Your task to perform on an android device: See recent photos Image 0: 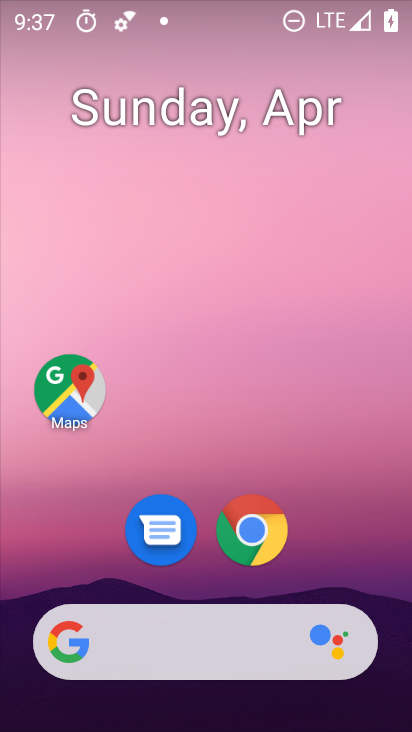
Step 0: drag from (395, 604) to (360, 0)
Your task to perform on an android device: See recent photos Image 1: 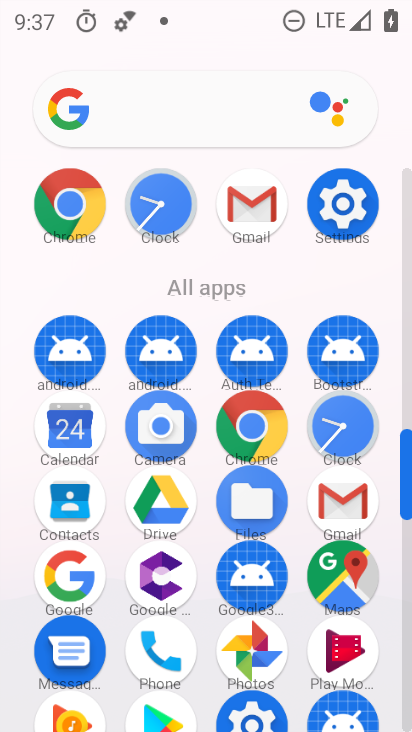
Step 1: click (250, 657)
Your task to perform on an android device: See recent photos Image 2: 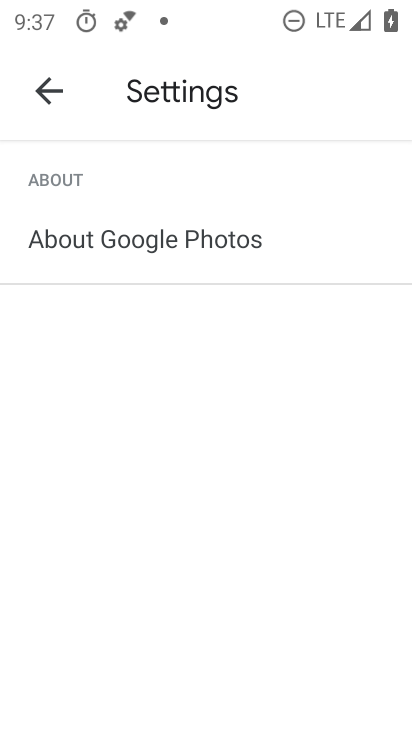
Step 2: click (43, 91)
Your task to perform on an android device: See recent photos Image 3: 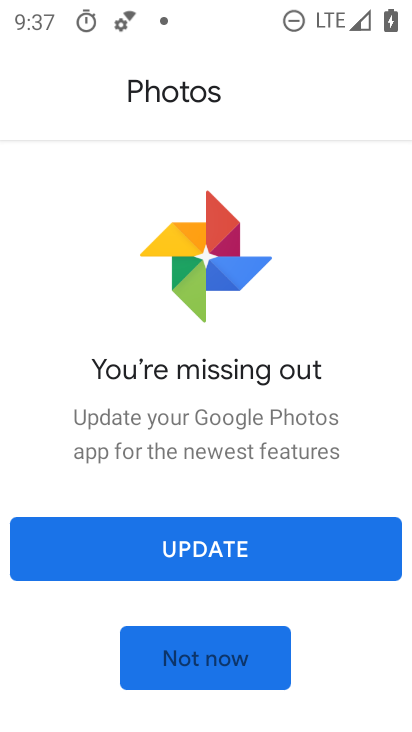
Step 3: click (214, 559)
Your task to perform on an android device: See recent photos Image 4: 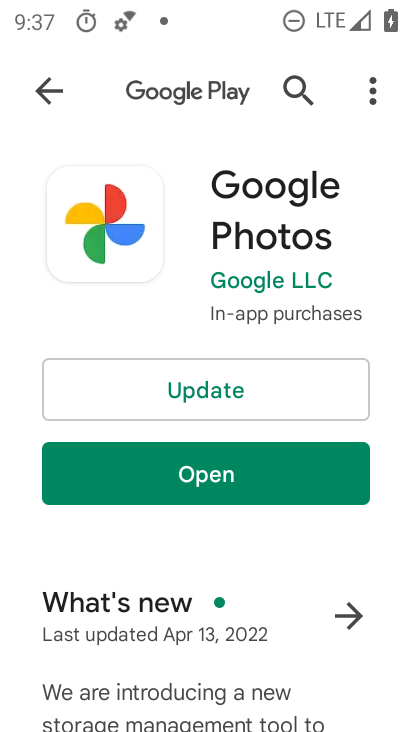
Step 4: click (195, 386)
Your task to perform on an android device: See recent photos Image 5: 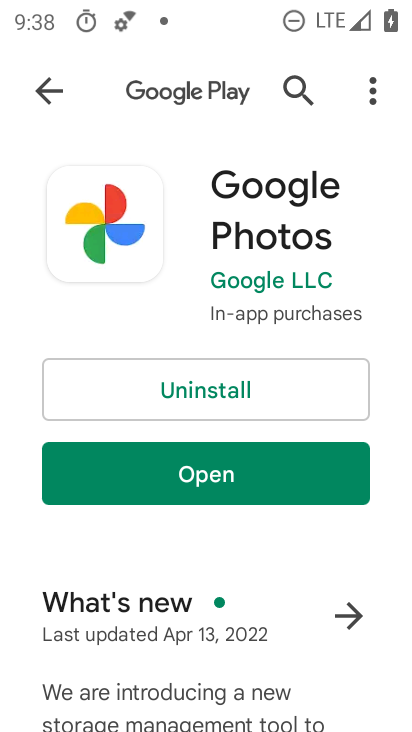
Step 5: click (197, 491)
Your task to perform on an android device: See recent photos Image 6: 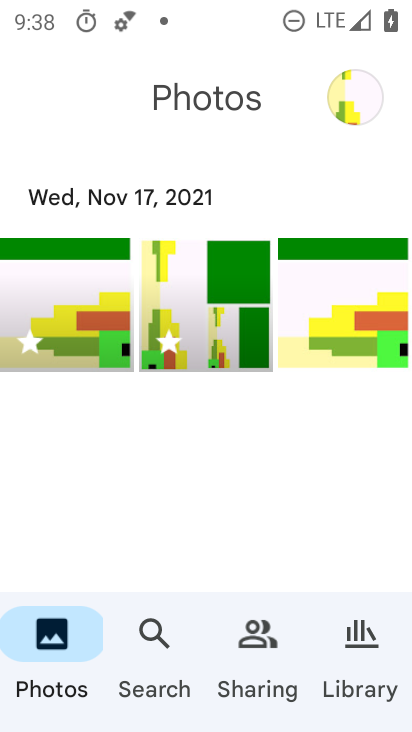
Step 6: click (360, 694)
Your task to perform on an android device: See recent photos Image 7: 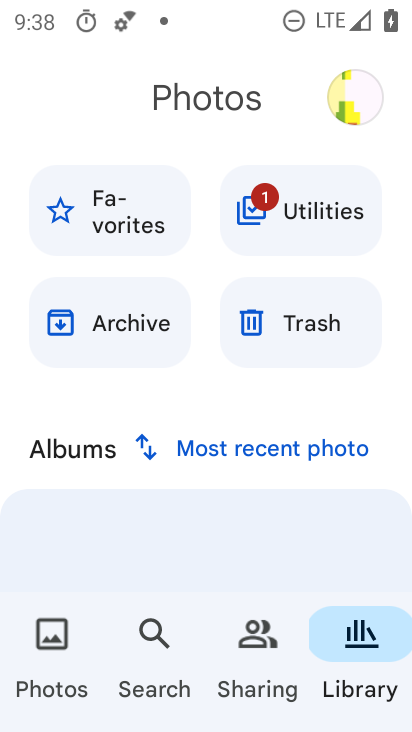
Step 7: click (293, 446)
Your task to perform on an android device: See recent photos Image 8: 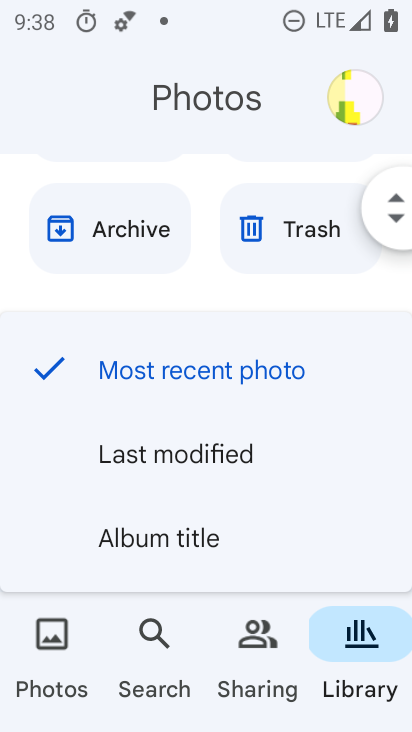
Step 8: click (229, 374)
Your task to perform on an android device: See recent photos Image 9: 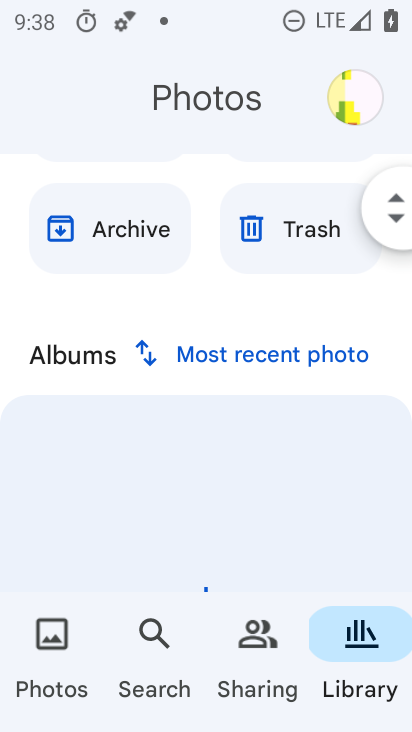
Step 9: drag from (243, 507) to (231, 255)
Your task to perform on an android device: See recent photos Image 10: 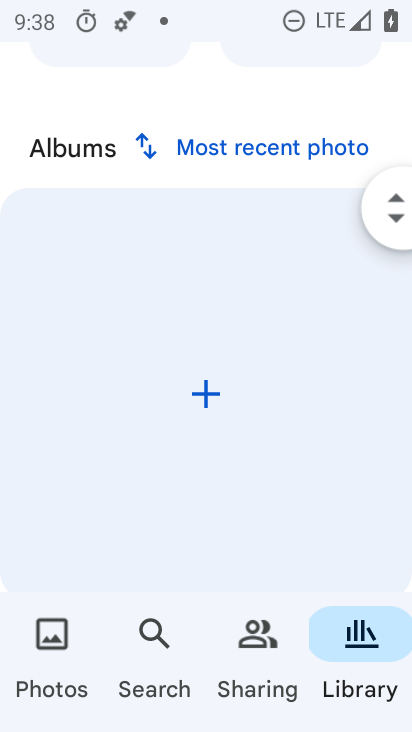
Step 10: click (247, 353)
Your task to perform on an android device: See recent photos Image 11: 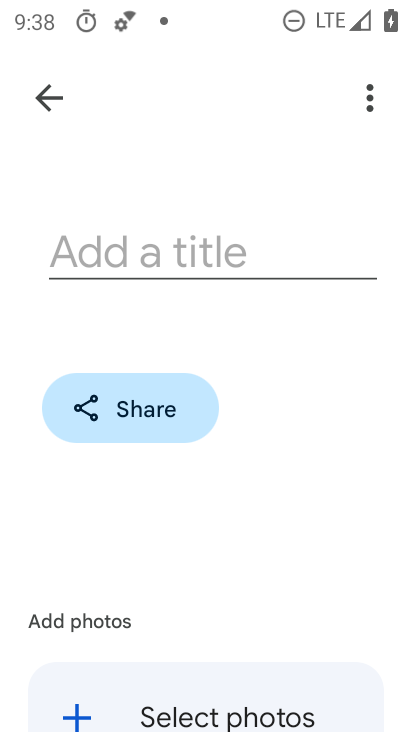
Step 11: click (35, 99)
Your task to perform on an android device: See recent photos Image 12: 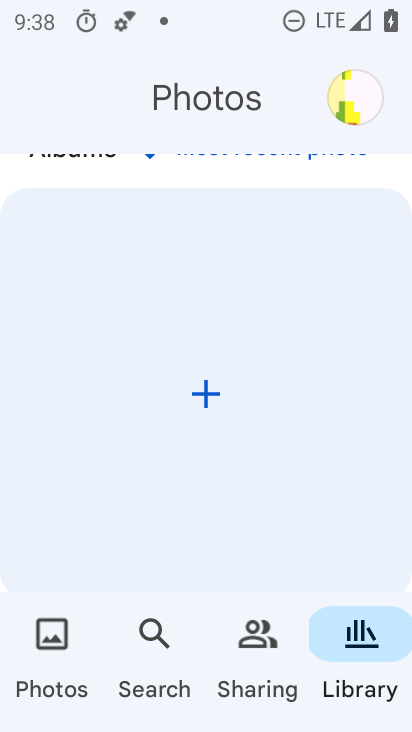
Step 12: task complete